Your task to perform on an android device: change the clock display to analog Image 0: 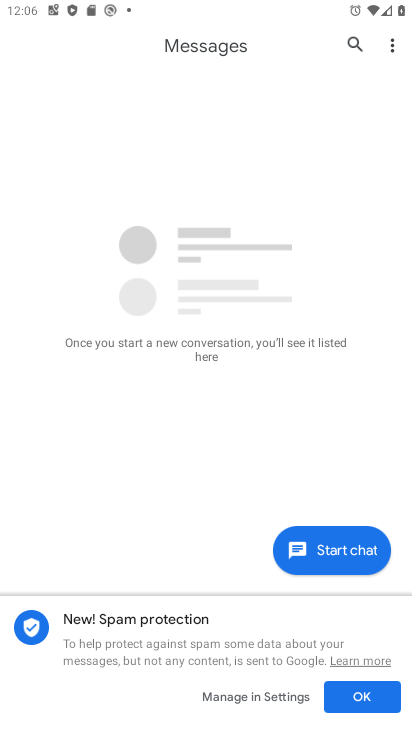
Step 0: press home button
Your task to perform on an android device: change the clock display to analog Image 1: 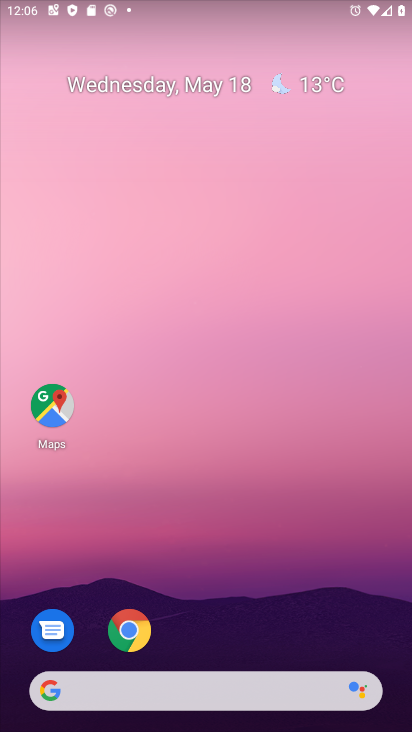
Step 1: drag from (212, 718) to (215, 288)
Your task to perform on an android device: change the clock display to analog Image 2: 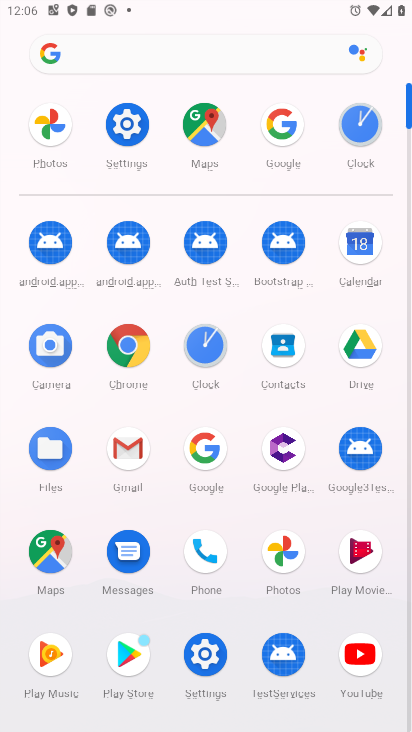
Step 2: click (210, 340)
Your task to perform on an android device: change the clock display to analog Image 3: 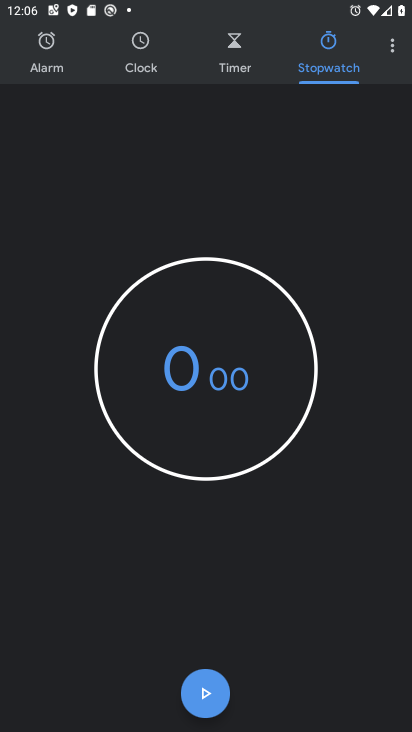
Step 3: click (395, 54)
Your task to perform on an android device: change the clock display to analog Image 4: 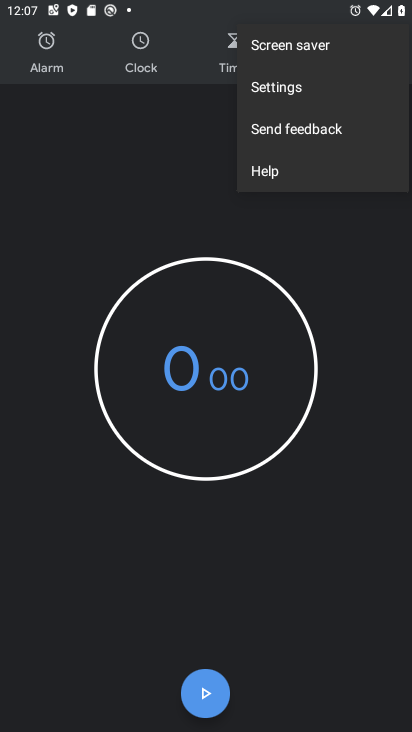
Step 4: click (289, 92)
Your task to perform on an android device: change the clock display to analog Image 5: 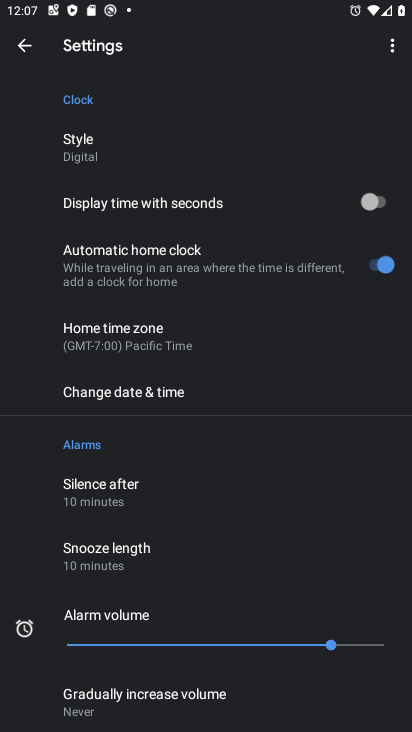
Step 5: click (70, 154)
Your task to perform on an android device: change the clock display to analog Image 6: 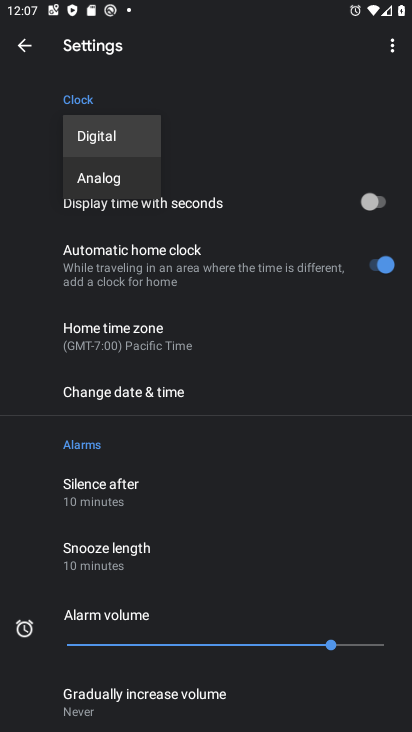
Step 6: click (107, 178)
Your task to perform on an android device: change the clock display to analog Image 7: 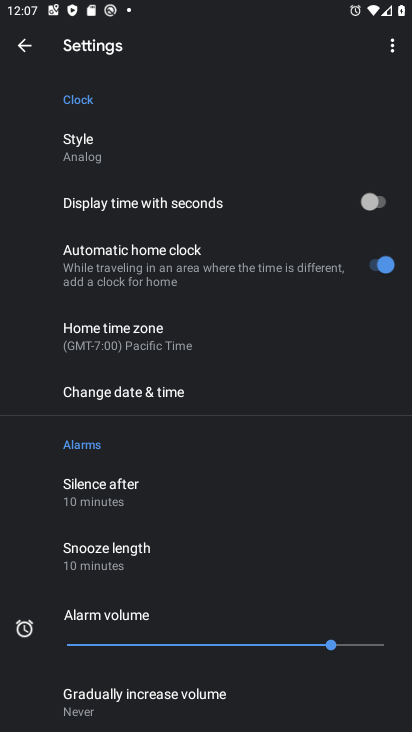
Step 7: task complete